Your task to perform on an android device: Open calendar and show me the second week of next month Image 0: 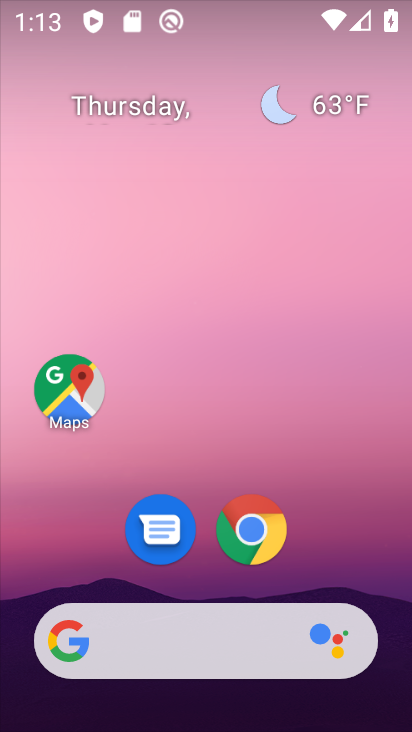
Step 0: drag from (342, 550) to (183, 12)
Your task to perform on an android device: Open calendar and show me the second week of next month Image 1: 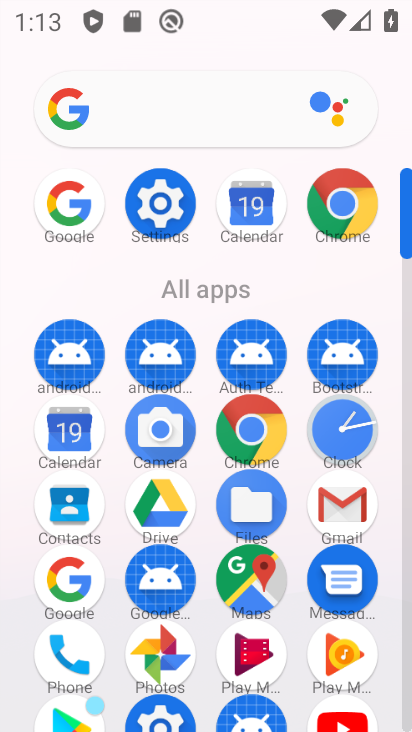
Step 1: click (249, 206)
Your task to perform on an android device: Open calendar and show me the second week of next month Image 2: 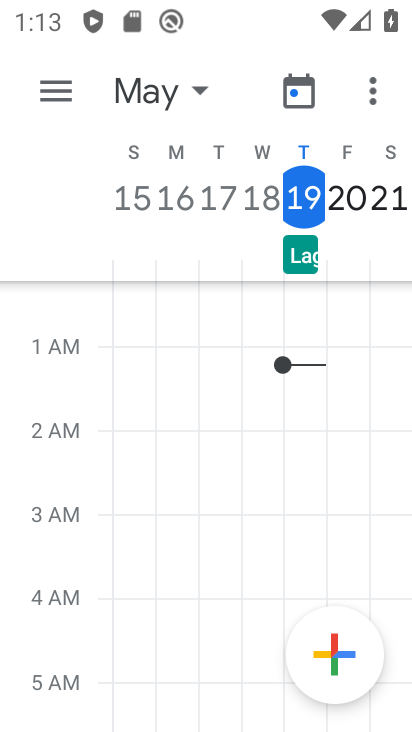
Step 2: click (304, 94)
Your task to perform on an android device: Open calendar and show me the second week of next month Image 3: 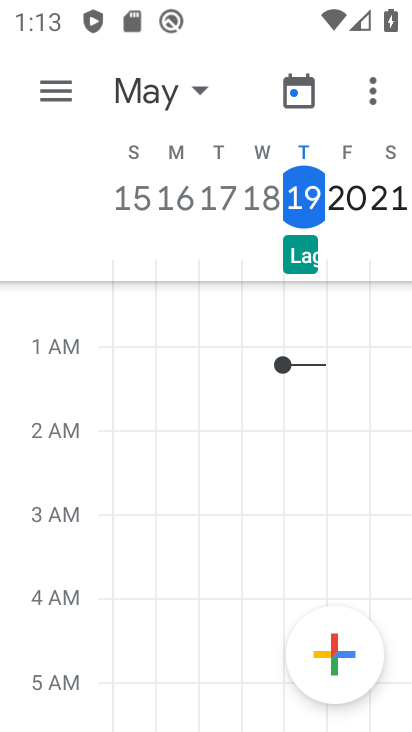
Step 3: click (198, 86)
Your task to perform on an android device: Open calendar and show me the second week of next month Image 4: 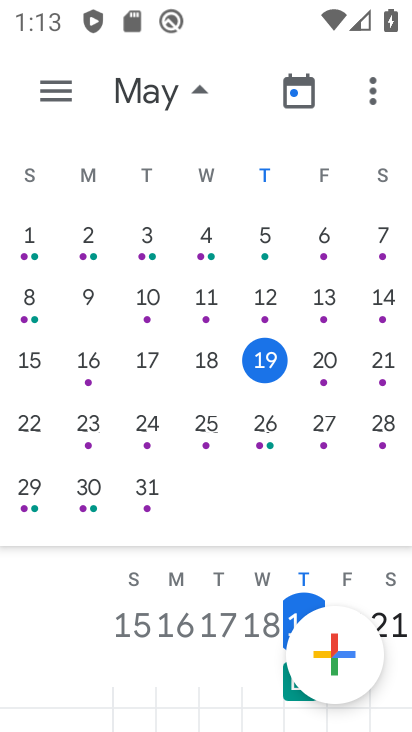
Step 4: drag from (357, 384) to (0, 370)
Your task to perform on an android device: Open calendar and show me the second week of next month Image 5: 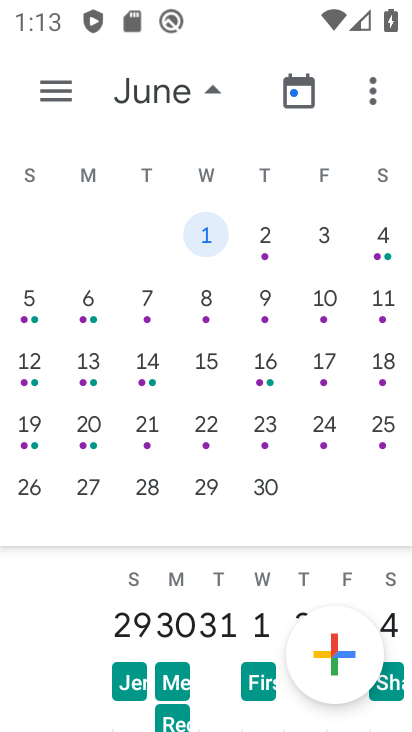
Step 5: click (95, 369)
Your task to perform on an android device: Open calendar and show me the second week of next month Image 6: 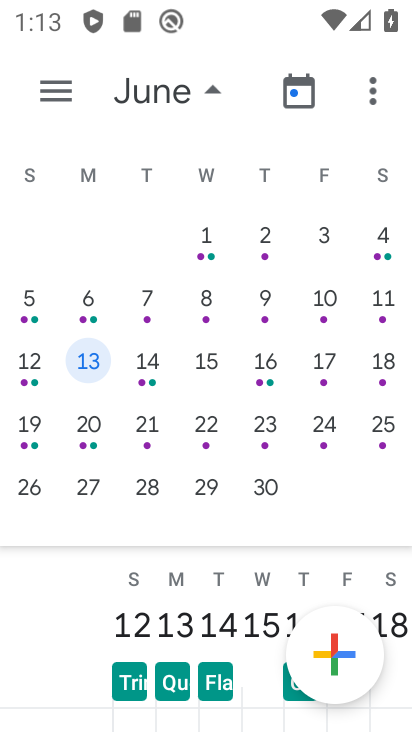
Step 6: click (62, 97)
Your task to perform on an android device: Open calendar and show me the second week of next month Image 7: 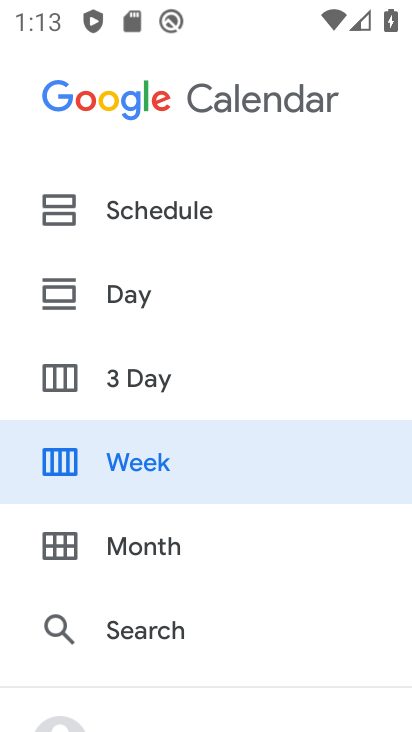
Step 7: click (199, 471)
Your task to perform on an android device: Open calendar and show me the second week of next month Image 8: 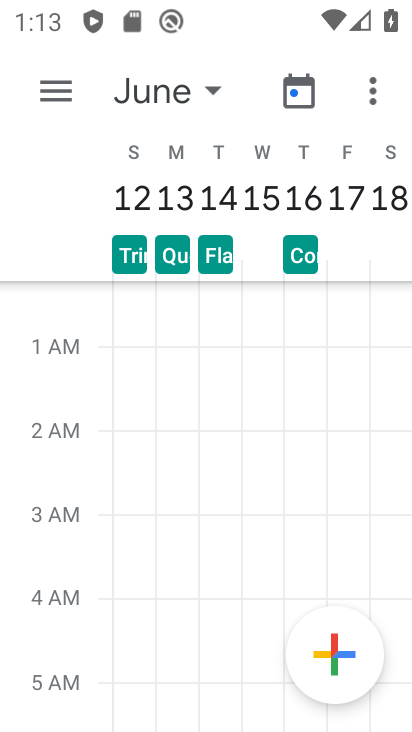
Step 8: task complete